Your task to perform on an android device: check android version Image 0: 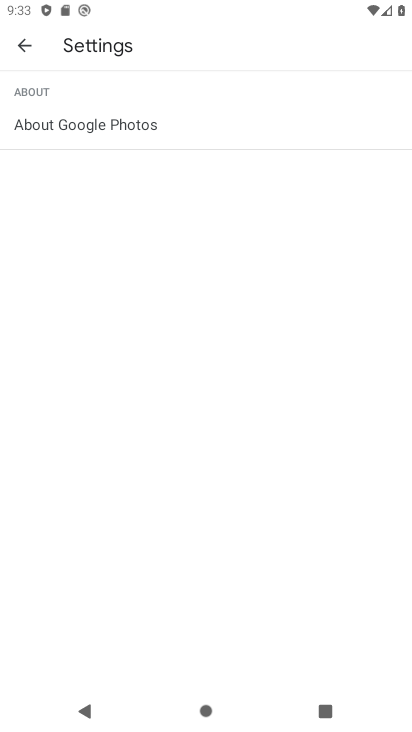
Step 0: press home button
Your task to perform on an android device: check android version Image 1: 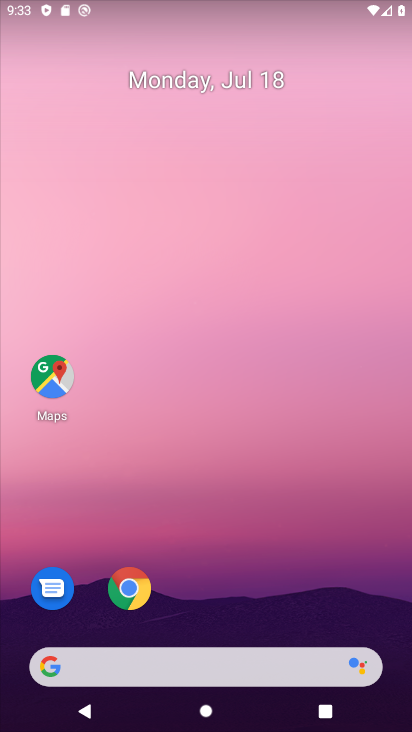
Step 1: drag from (301, 594) to (187, 24)
Your task to perform on an android device: check android version Image 2: 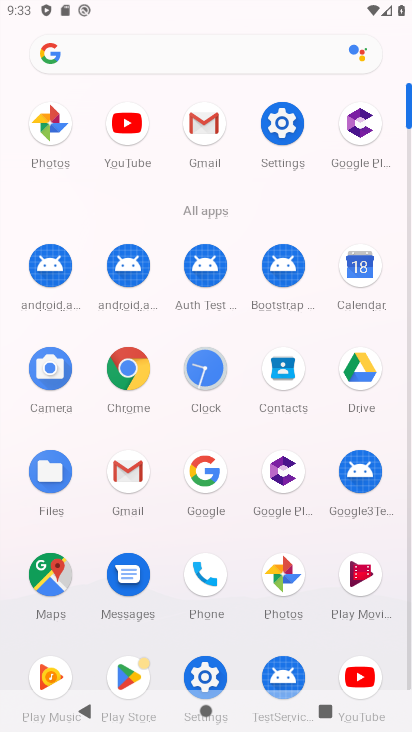
Step 2: drag from (255, 220) to (203, 20)
Your task to perform on an android device: check android version Image 3: 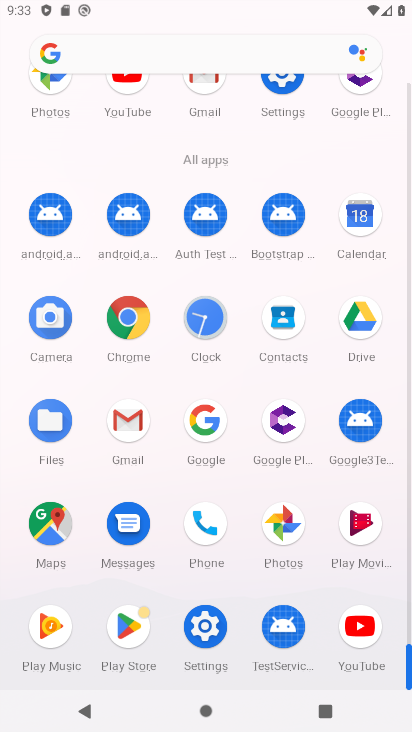
Step 3: click (194, 638)
Your task to perform on an android device: check android version Image 4: 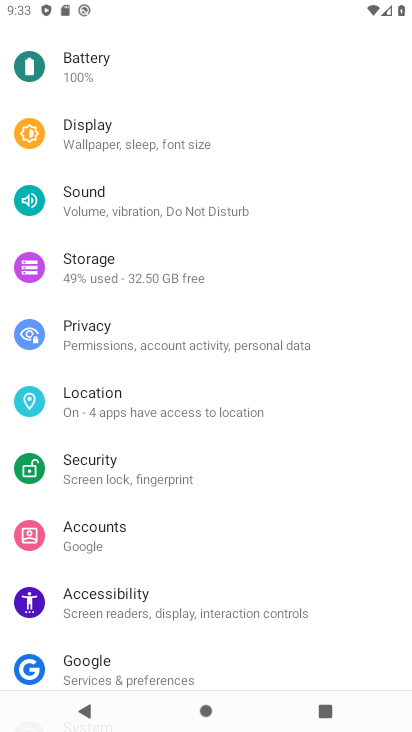
Step 4: drag from (231, 640) to (149, 278)
Your task to perform on an android device: check android version Image 5: 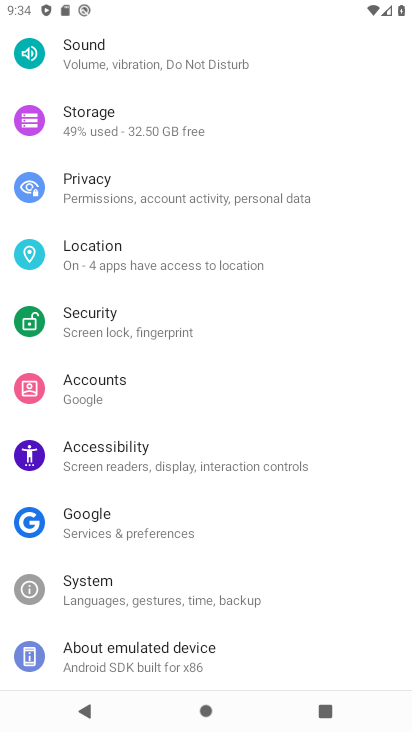
Step 5: click (278, 649)
Your task to perform on an android device: check android version Image 6: 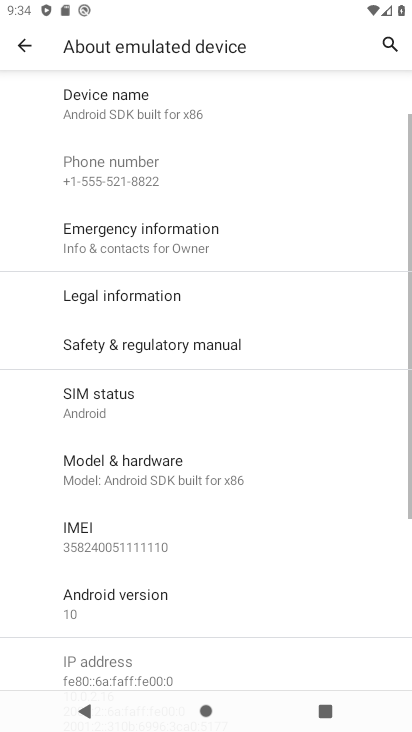
Step 6: click (87, 605)
Your task to perform on an android device: check android version Image 7: 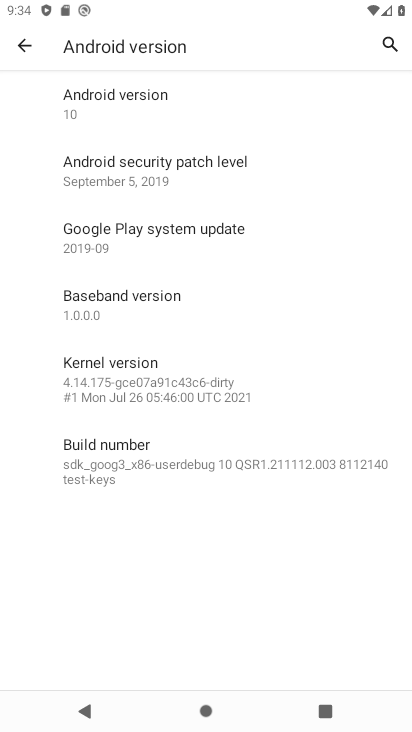
Step 7: task complete